Your task to perform on an android device: Open ESPN.com Image 0: 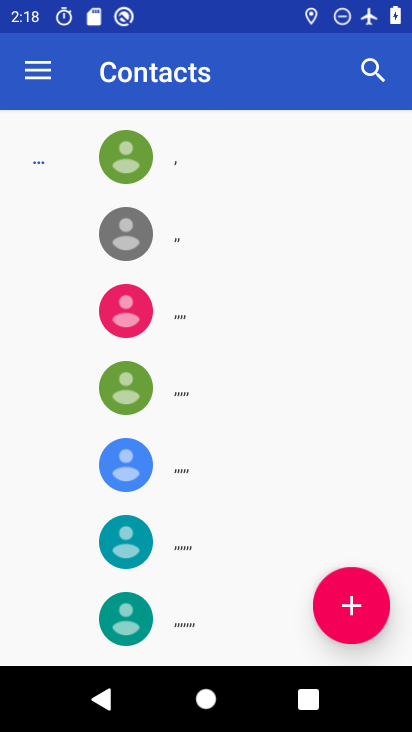
Step 0: press home button
Your task to perform on an android device: Open ESPN.com Image 1: 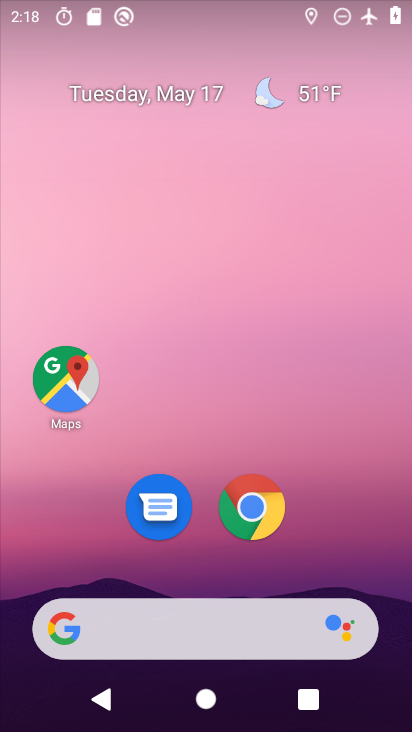
Step 1: drag from (199, 563) to (209, 115)
Your task to perform on an android device: Open ESPN.com Image 2: 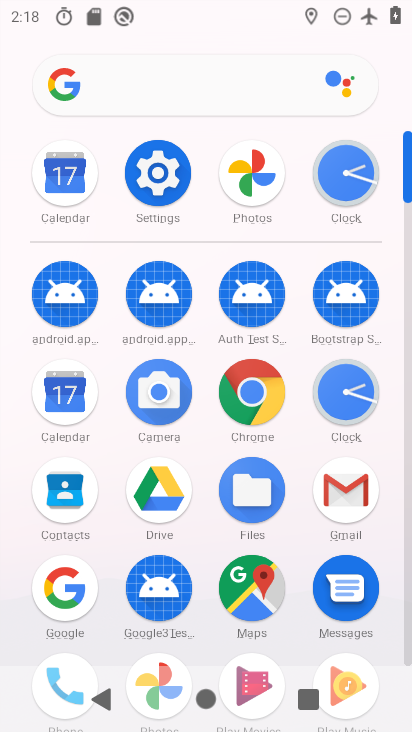
Step 2: click (66, 585)
Your task to perform on an android device: Open ESPN.com Image 3: 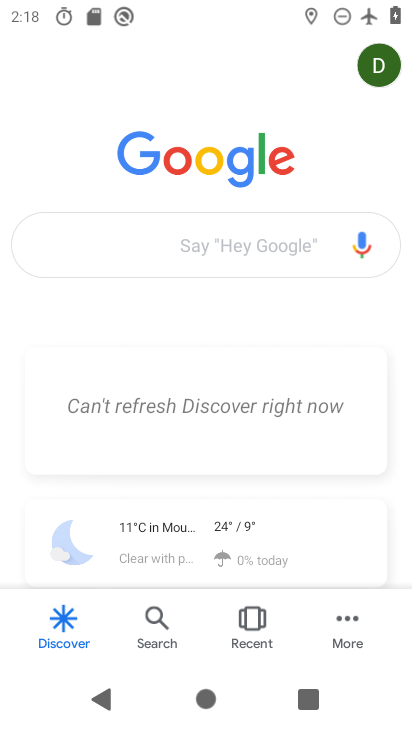
Step 3: click (181, 252)
Your task to perform on an android device: Open ESPN.com Image 4: 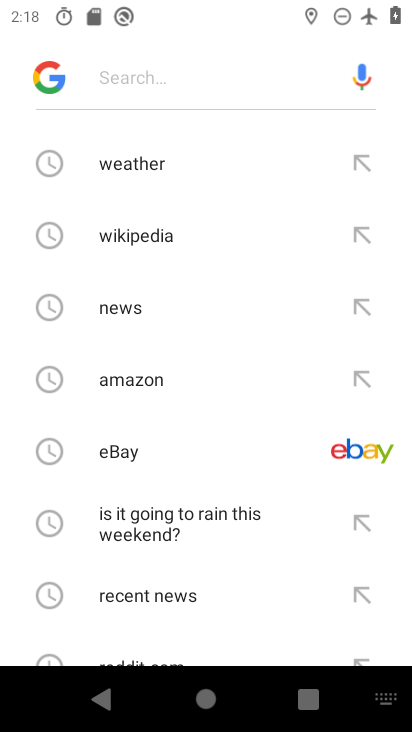
Step 4: drag from (195, 552) to (227, 177)
Your task to perform on an android device: Open ESPN.com Image 5: 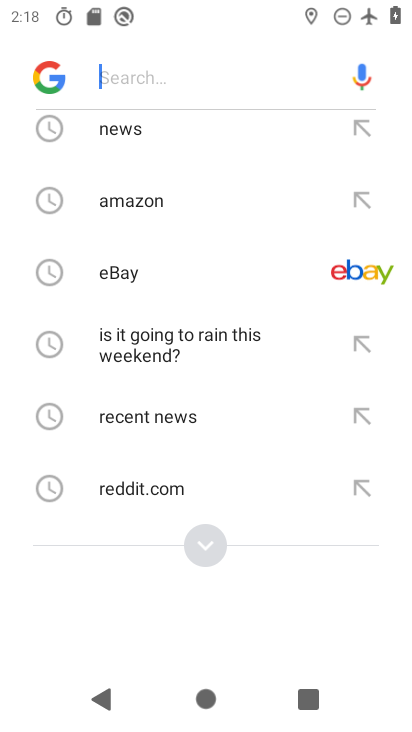
Step 5: click (206, 559)
Your task to perform on an android device: Open ESPN.com Image 6: 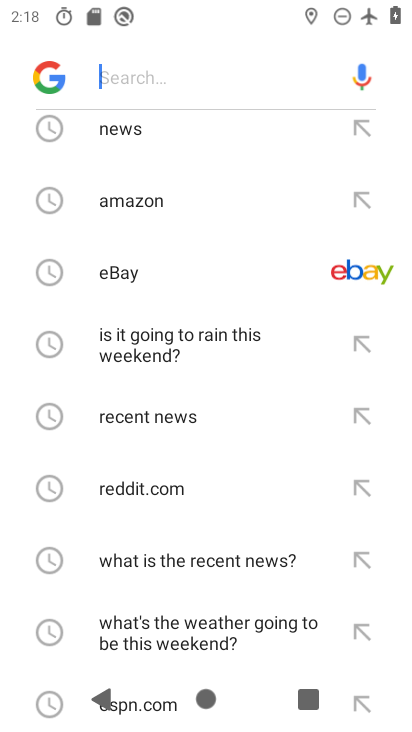
Step 6: drag from (236, 577) to (226, 359)
Your task to perform on an android device: Open ESPN.com Image 7: 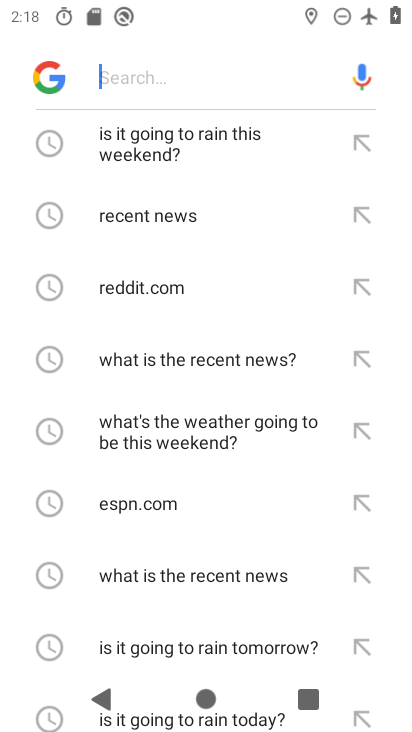
Step 7: click (116, 512)
Your task to perform on an android device: Open ESPN.com Image 8: 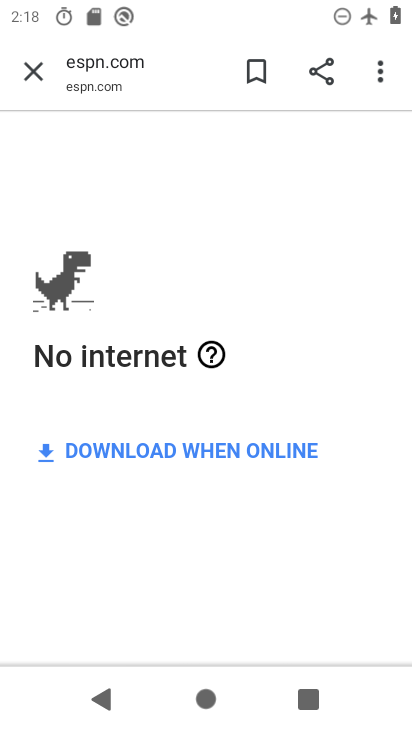
Step 8: task complete